Your task to perform on an android device: Set the phone to "Do not disturb". Image 0: 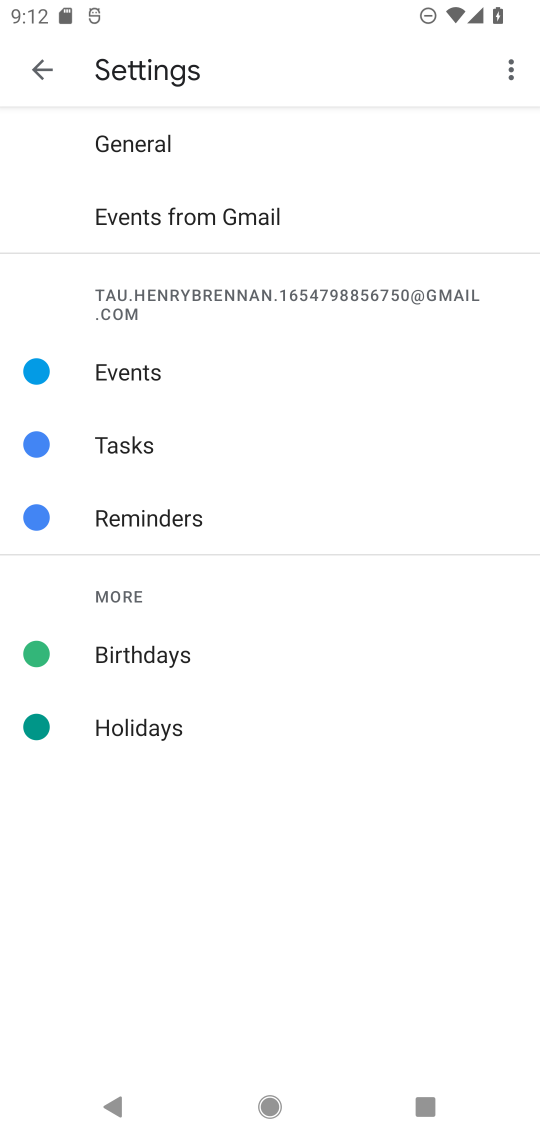
Step 0: drag from (372, 3) to (335, 1015)
Your task to perform on an android device: Set the phone to "Do not disturb". Image 1: 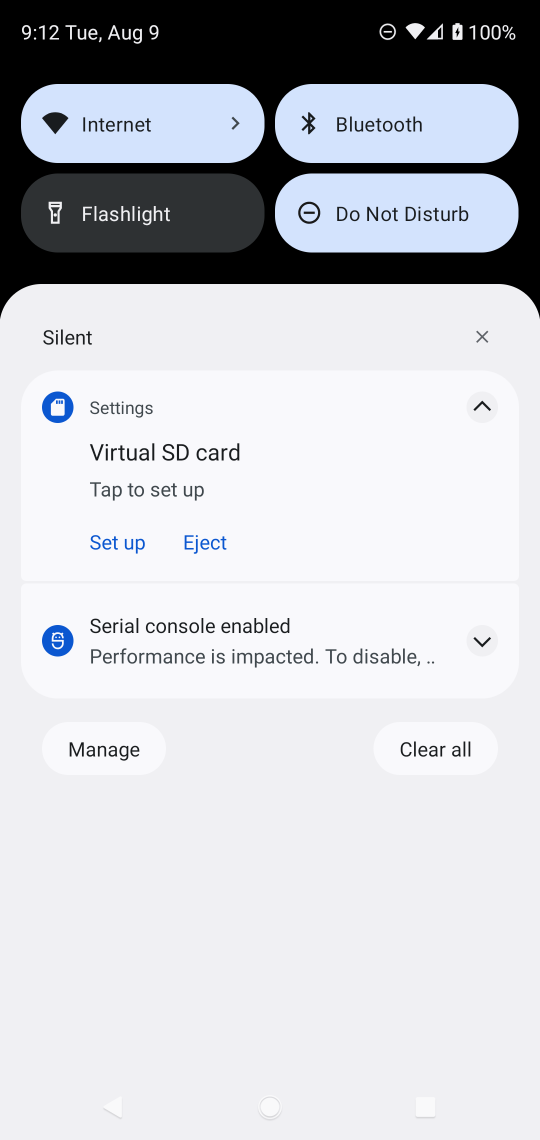
Step 1: task complete